Your task to perform on an android device: Open the calendar and show me this week's events? Image 0: 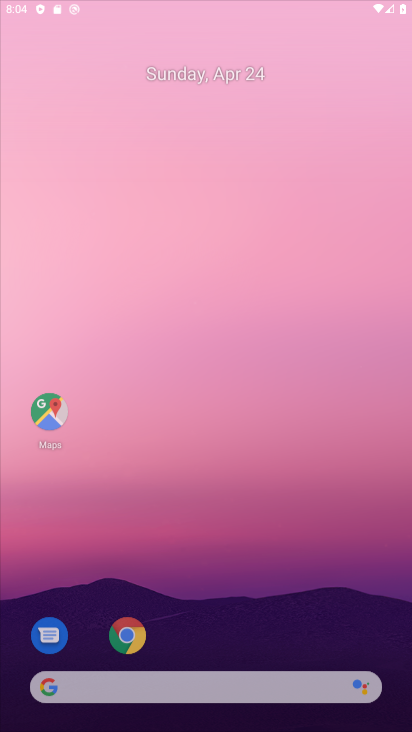
Step 0: drag from (333, 579) to (268, 100)
Your task to perform on an android device: Open the calendar and show me this week's events? Image 1: 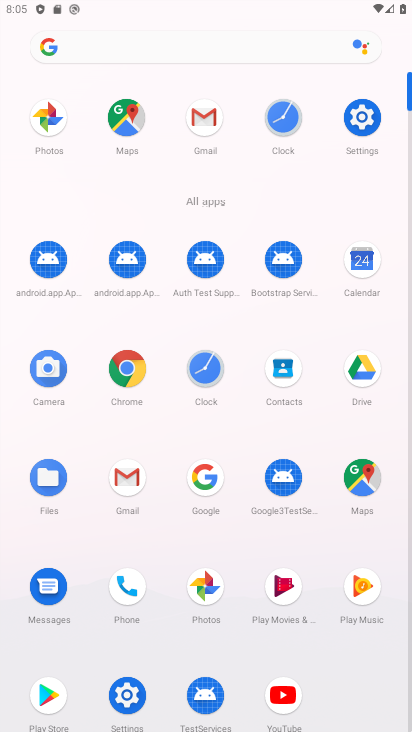
Step 1: click (362, 254)
Your task to perform on an android device: Open the calendar and show me this week's events? Image 2: 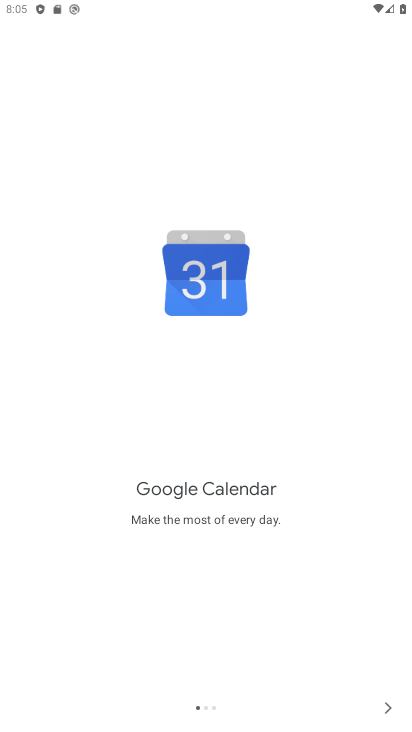
Step 2: click (383, 701)
Your task to perform on an android device: Open the calendar and show me this week's events? Image 3: 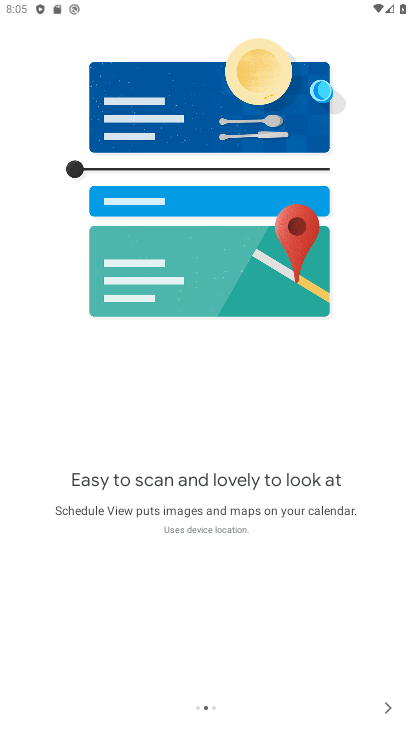
Step 3: click (390, 697)
Your task to perform on an android device: Open the calendar and show me this week's events? Image 4: 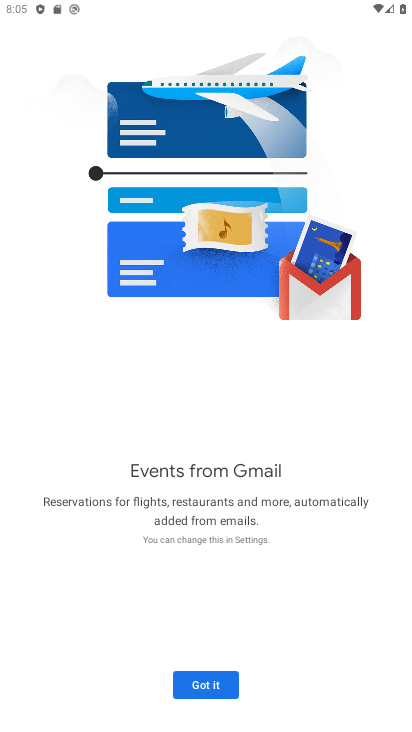
Step 4: click (200, 682)
Your task to perform on an android device: Open the calendar and show me this week's events? Image 5: 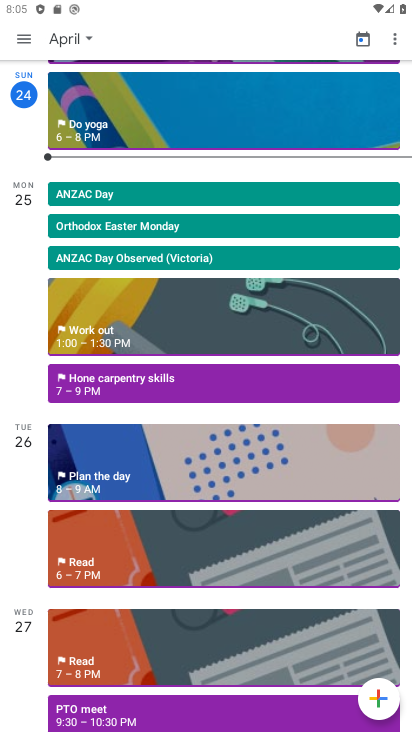
Step 5: click (22, 47)
Your task to perform on an android device: Open the calendar and show me this week's events? Image 6: 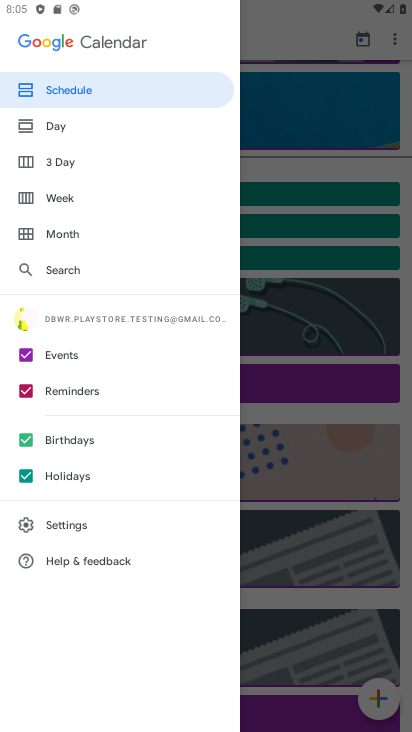
Step 6: click (29, 386)
Your task to perform on an android device: Open the calendar and show me this week's events? Image 7: 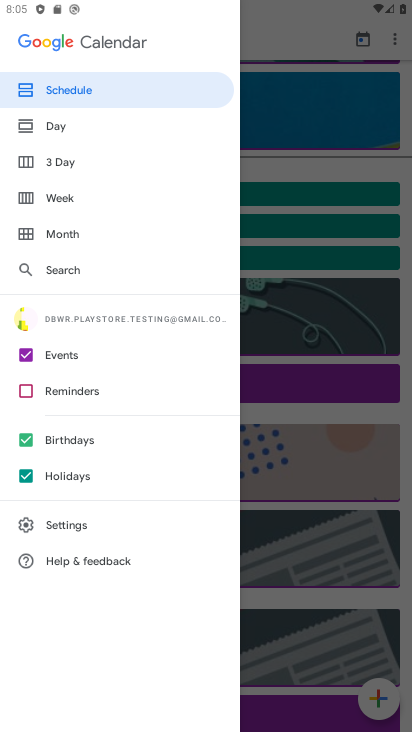
Step 7: click (29, 438)
Your task to perform on an android device: Open the calendar and show me this week's events? Image 8: 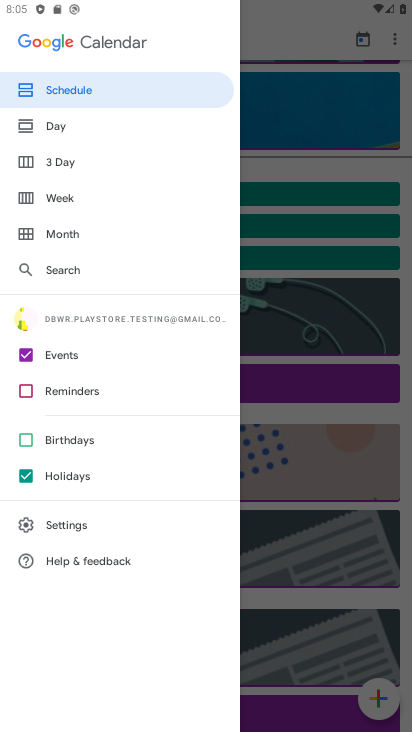
Step 8: click (23, 477)
Your task to perform on an android device: Open the calendar and show me this week's events? Image 9: 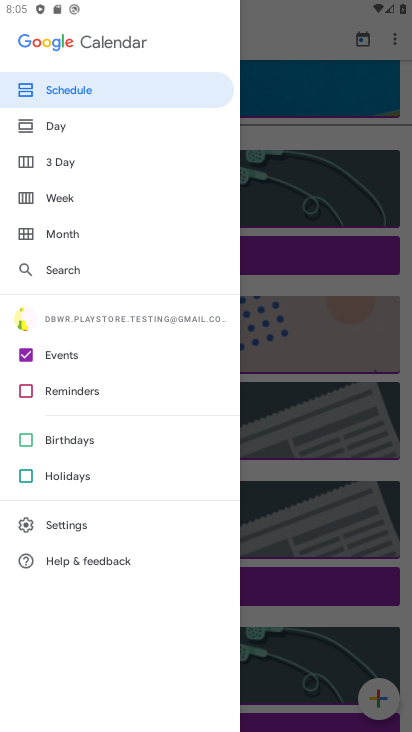
Step 9: click (312, 138)
Your task to perform on an android device: Open the calendar and show me this week's events? Image 10: 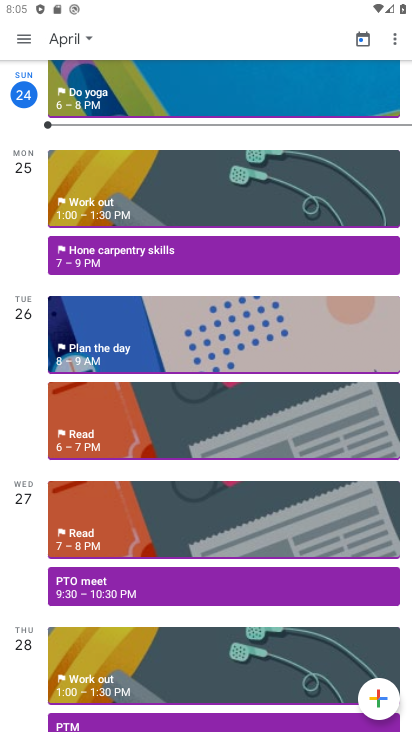
Step 10: task complete